Your task to perform on an android device: Search for razer blade on newegg, select the first entry, add it to the cart, then select checkout. Image 0: 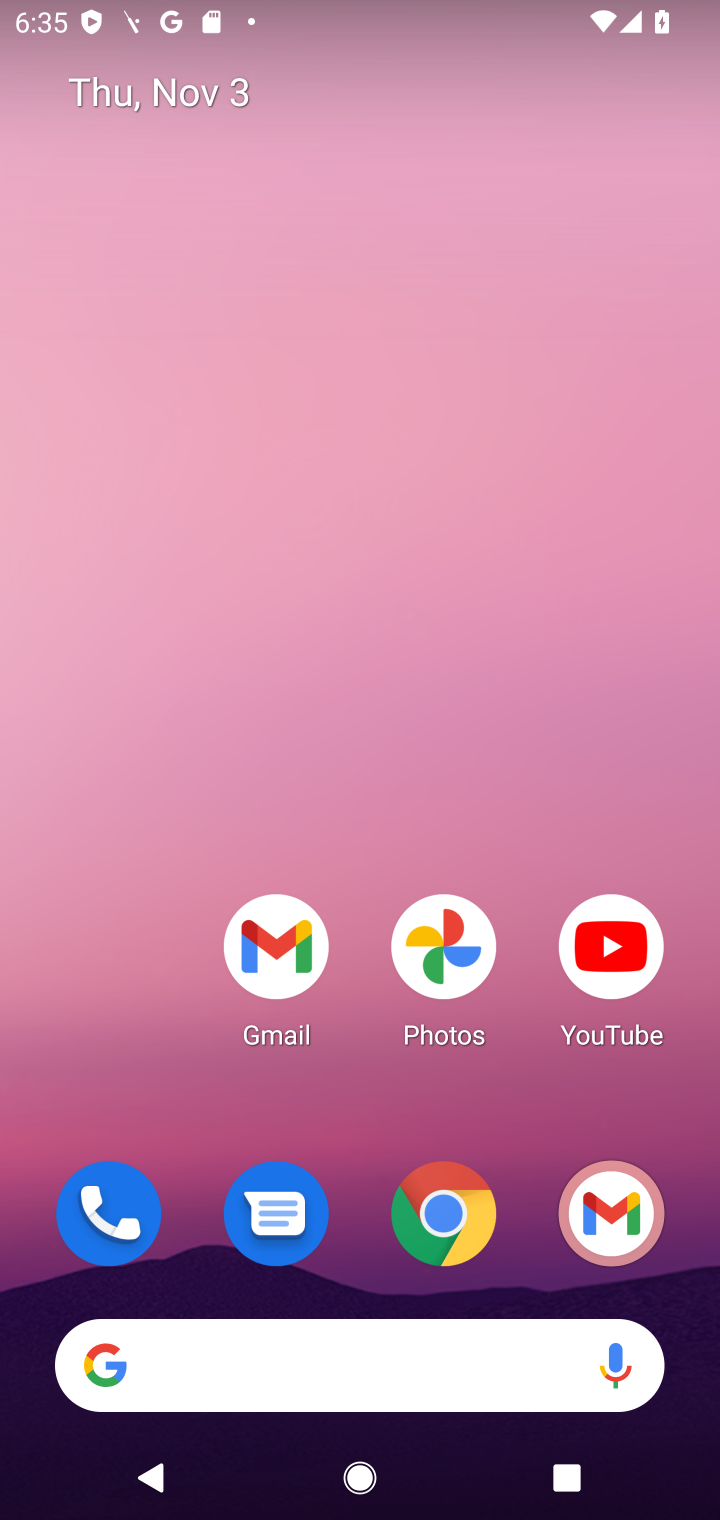
Step 0: click (443, 1220)
Your task to perform on an android device: Search for razer blade on newegg, select the first entry, add it to the cart, then select checkout. Image 1: 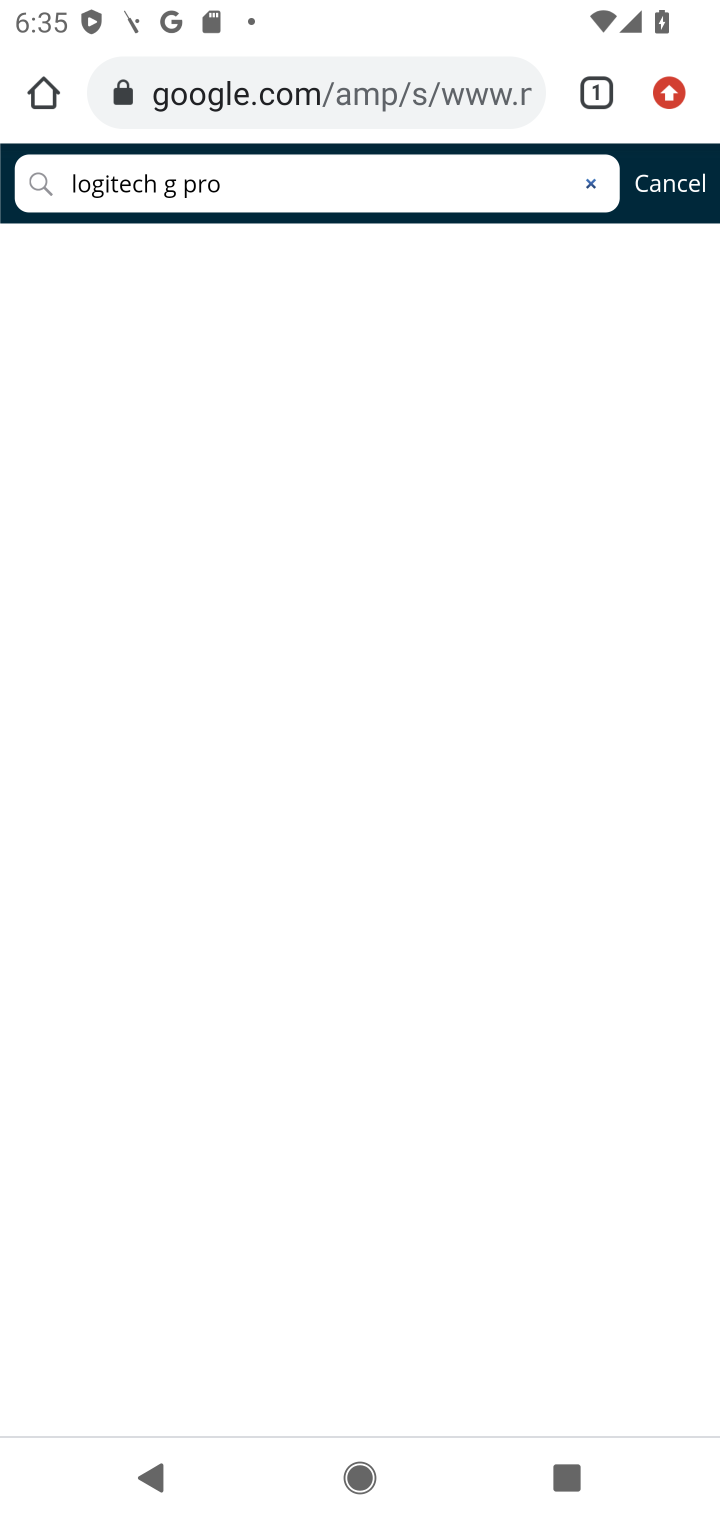
Step 1: click (292, 105)
Your task to perform on an android device: Search for razer blade on newegg, select the first entry, add it to the cart, then select checkout. Image 2: 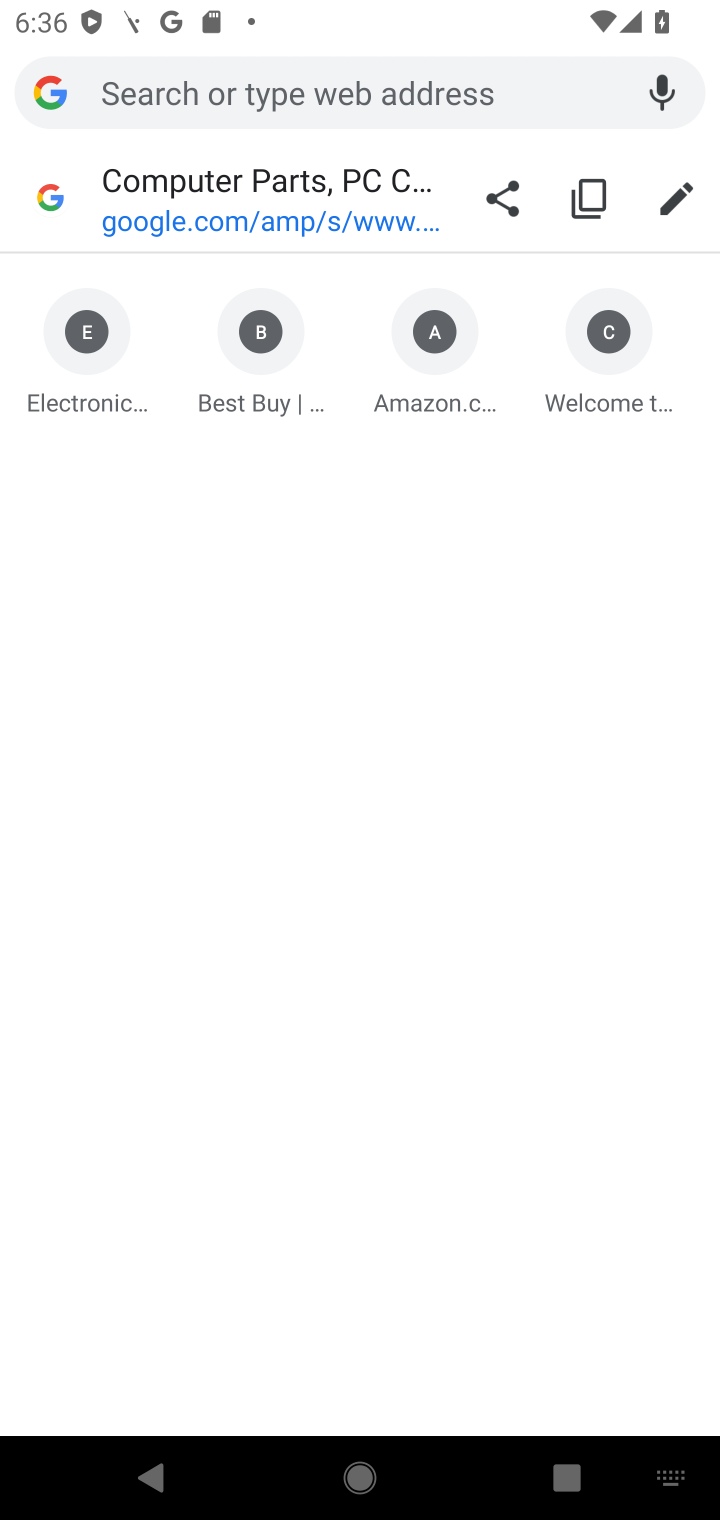
Step 2: type "newegg.com"
Your task to perform on an android device: Search for razer blade on newegg, select the first entry, add it to the cart, then select checkout. Image 3: 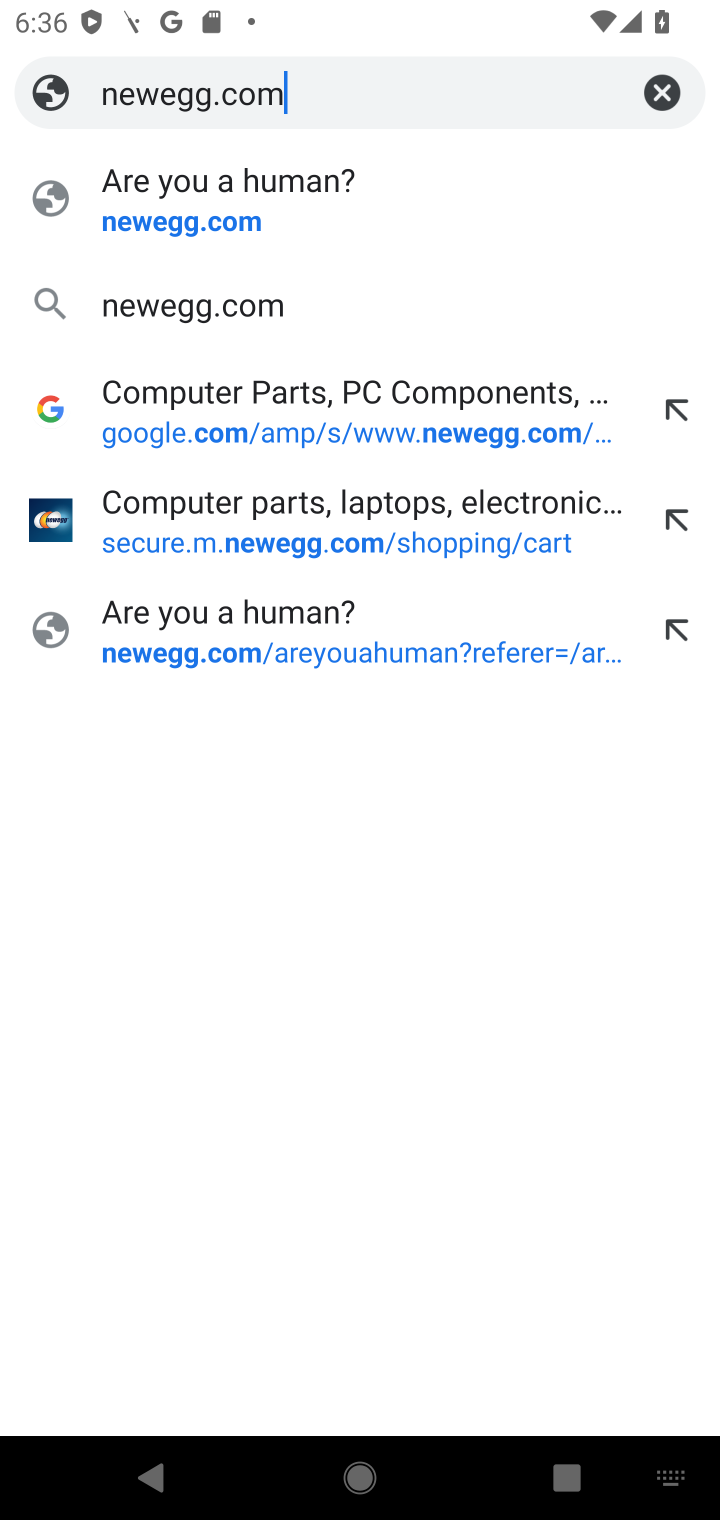
Step 3: click (183, 313)
Your task to perform on an android device: Search for razer blade on newegg, select the first entry, add it to the cart, then select checkout. Image 4: 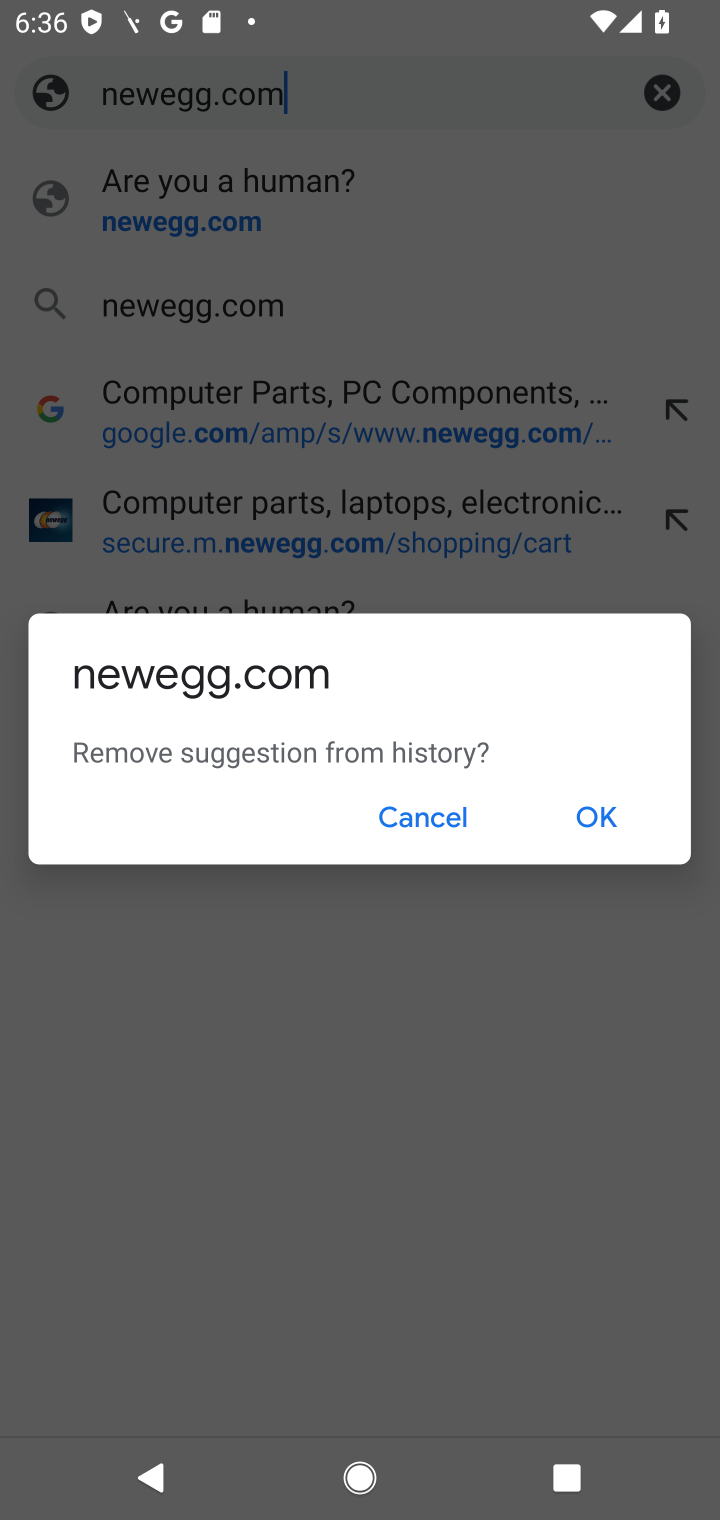
Step 4: click (402, 823)
Your task to perform on an android device: Search for razer blade on newegg, select the first entry, add it to the cart, then select checkout. Image 5: 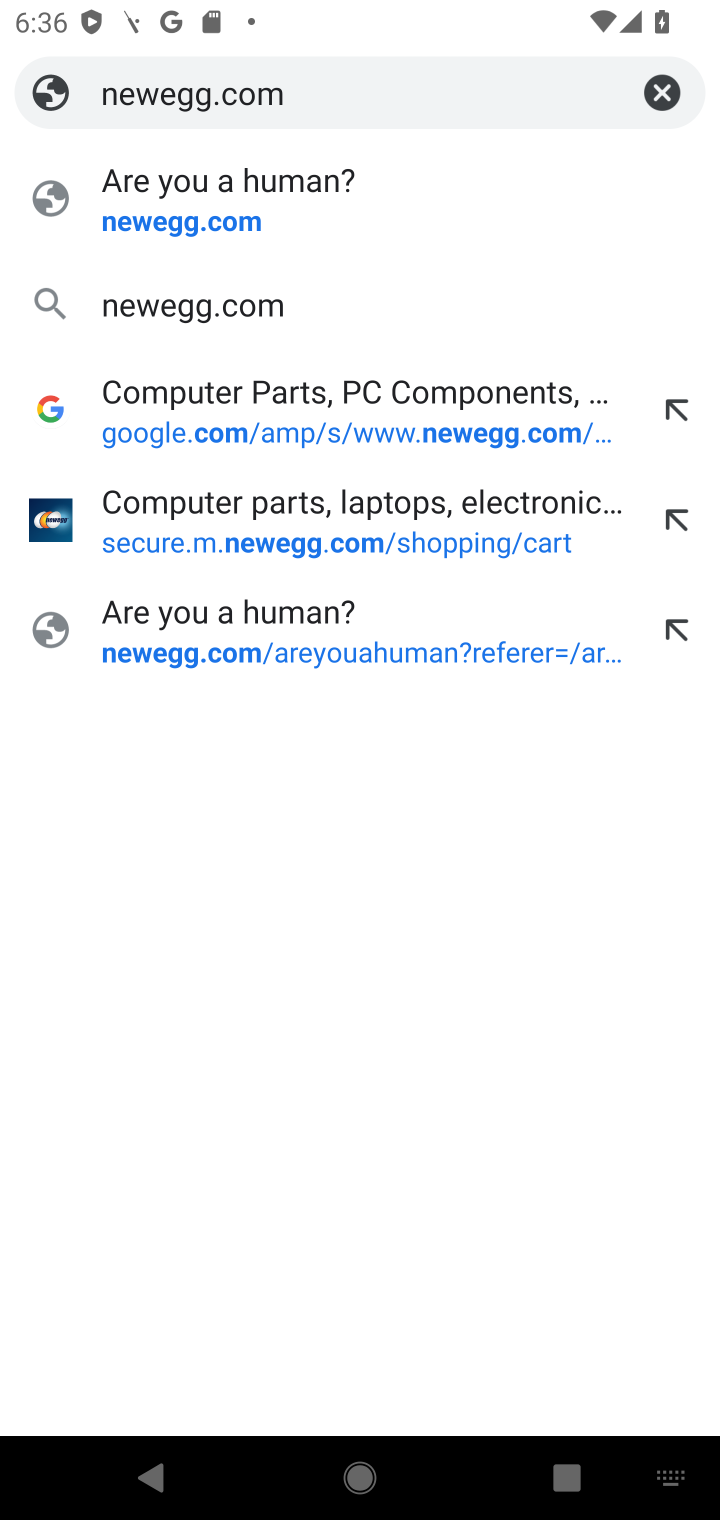
Step 5: click (164, 314)
Your task to perform on an android device: Search for razer blade on newegg, select the first entry, add it to the cart, then select checkout. Image 6: 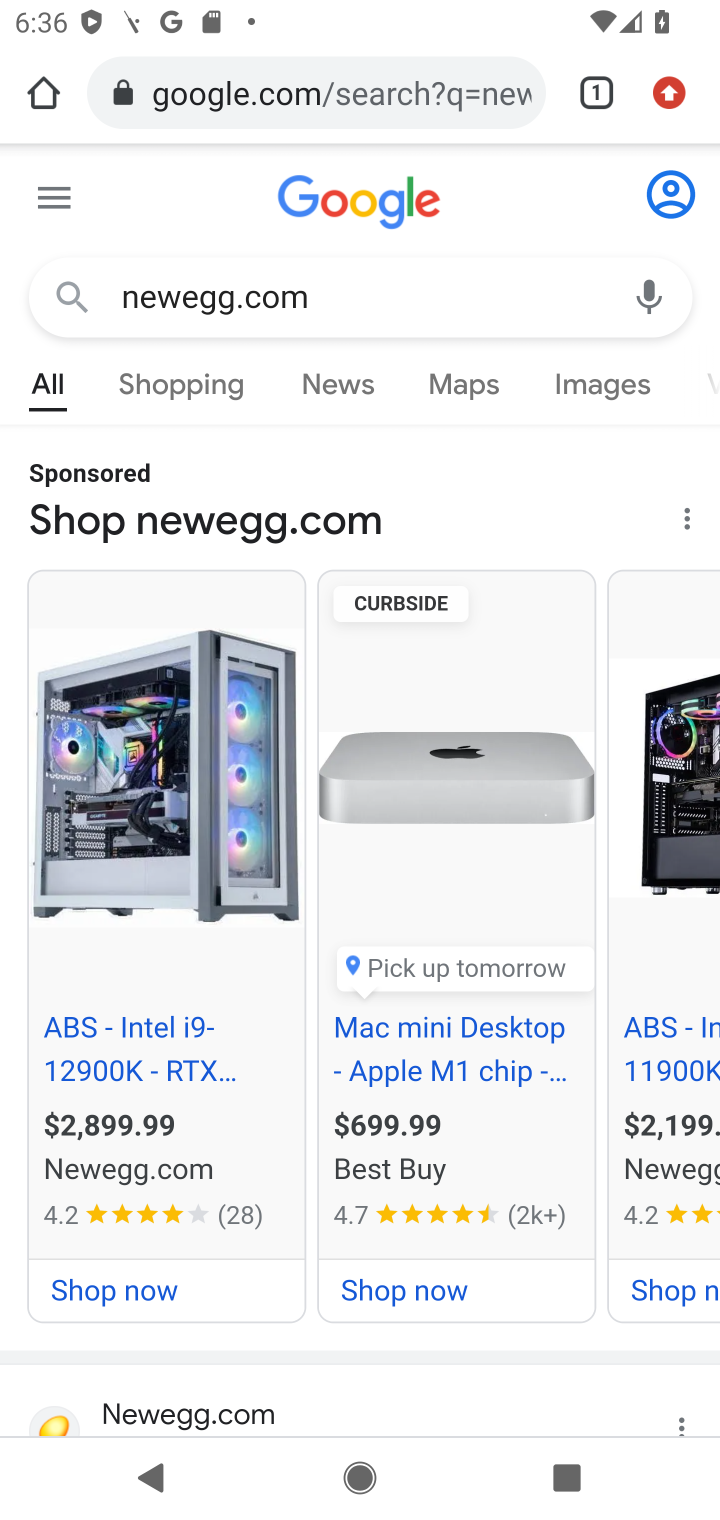
Step 6: drag from (286, 1016) to (374, 406)
Your task to perform on an android device: Search for razer blade on newegg, select the first entry, add it to the cart, then select checkout. Image 7: 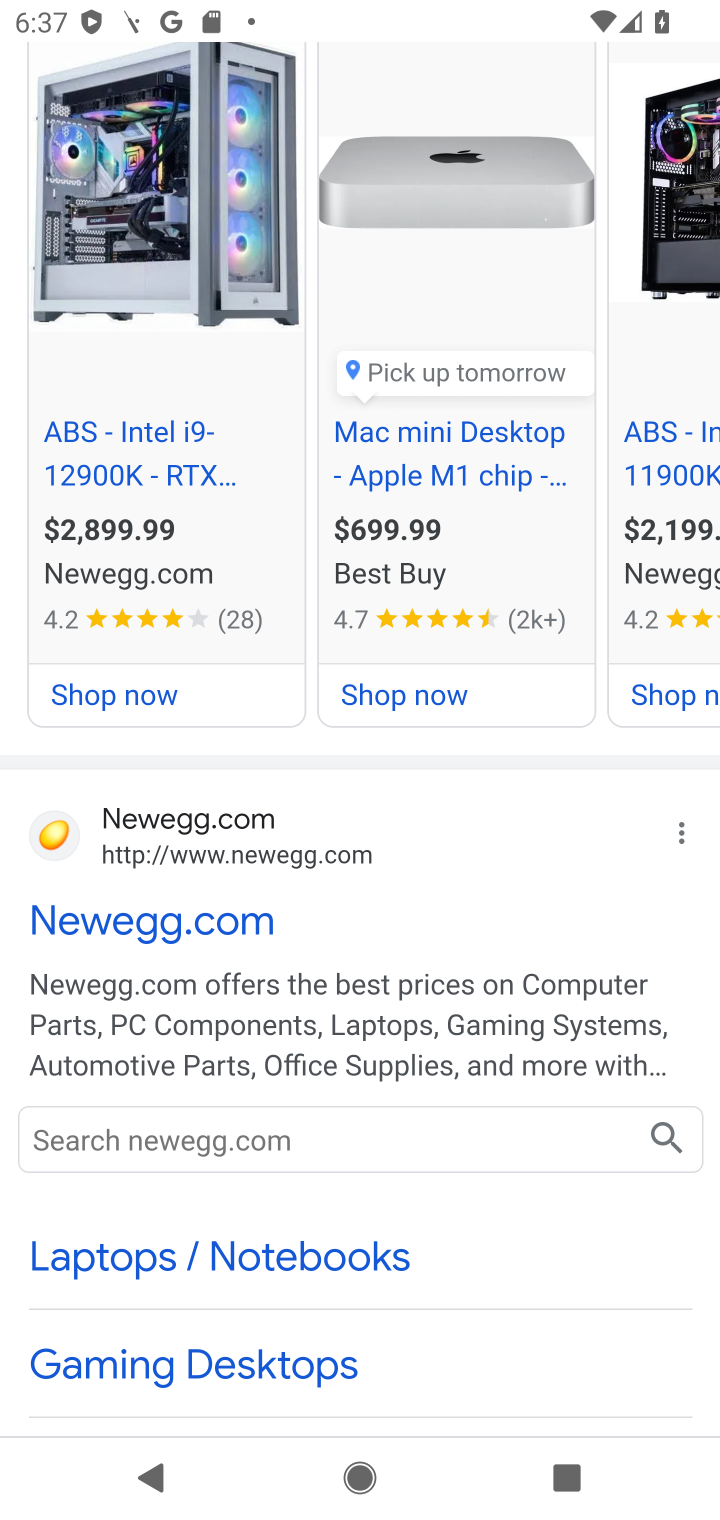
Step 7: click (84, 937)
Your task to perform on an android device: Search for razer blade on newegg, select the first entry, add it to the cart, then select checkout. Image 8: 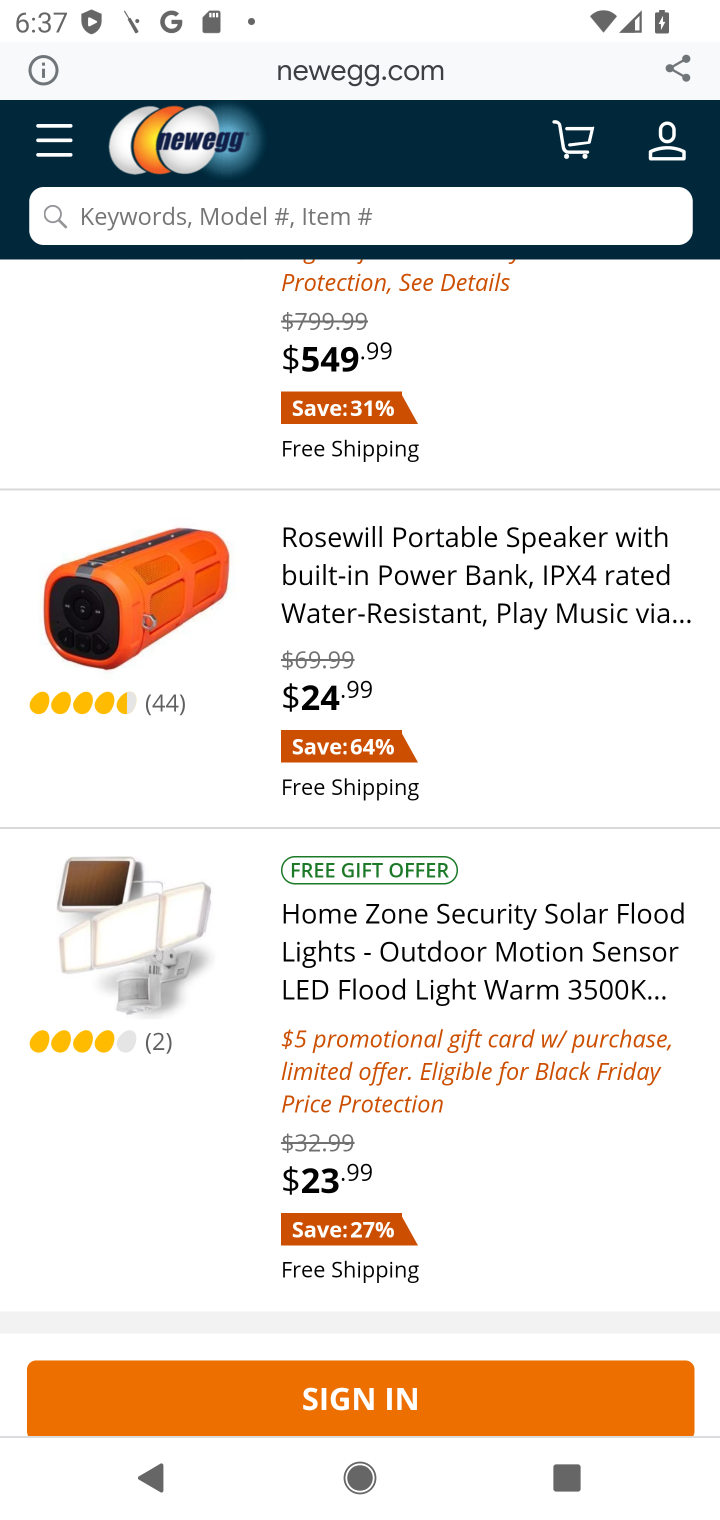
Step 8: drag from (143, 490) to (232, 1056)
Your task to perform on an android device: Search for razer blade on newegg, select the first entry, add it to the cart, then select checkout. Image 9: 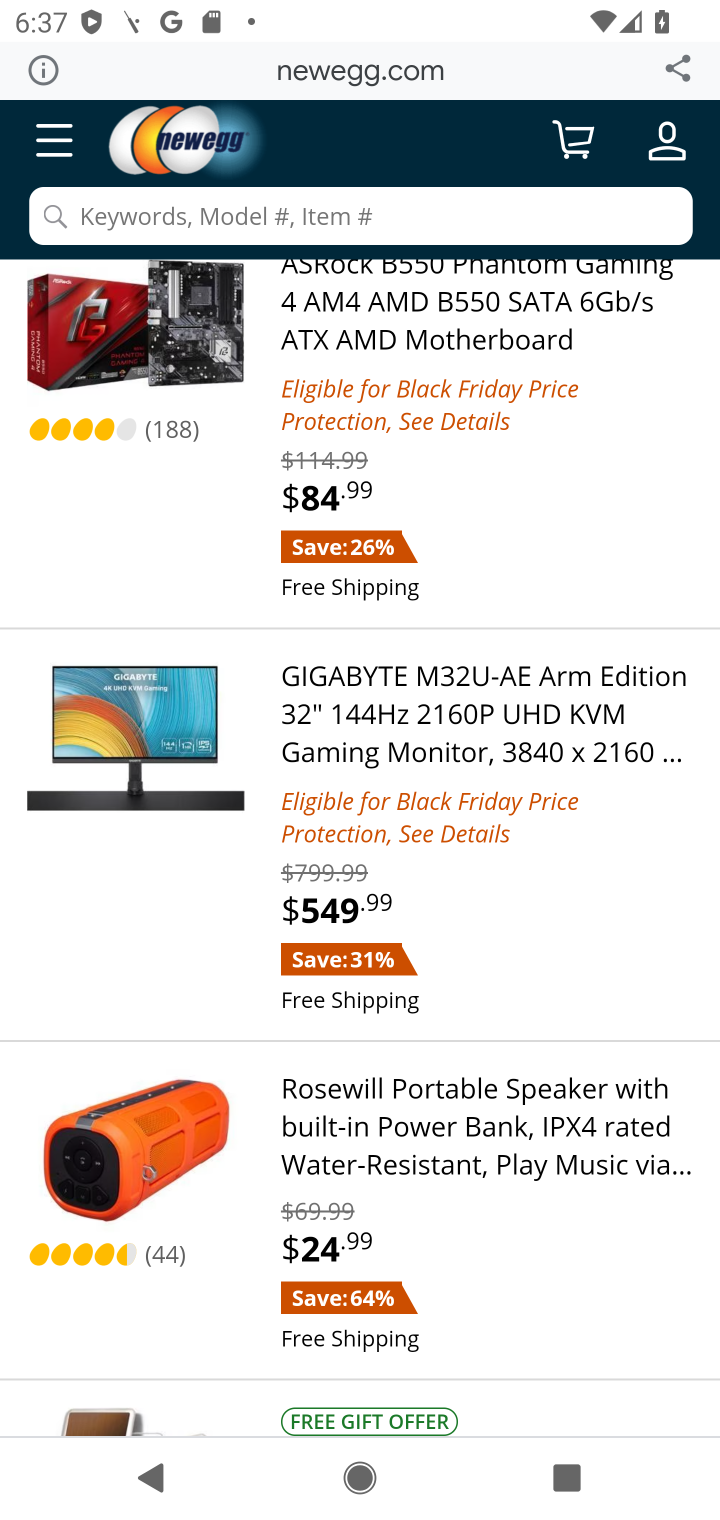
Step 9: drag from (261, 484) to (249, 1074)
Your task to perform on an android device: Search for razer blade on newegg, select the first entry, add it to the cart, then select checkout. Image 10: 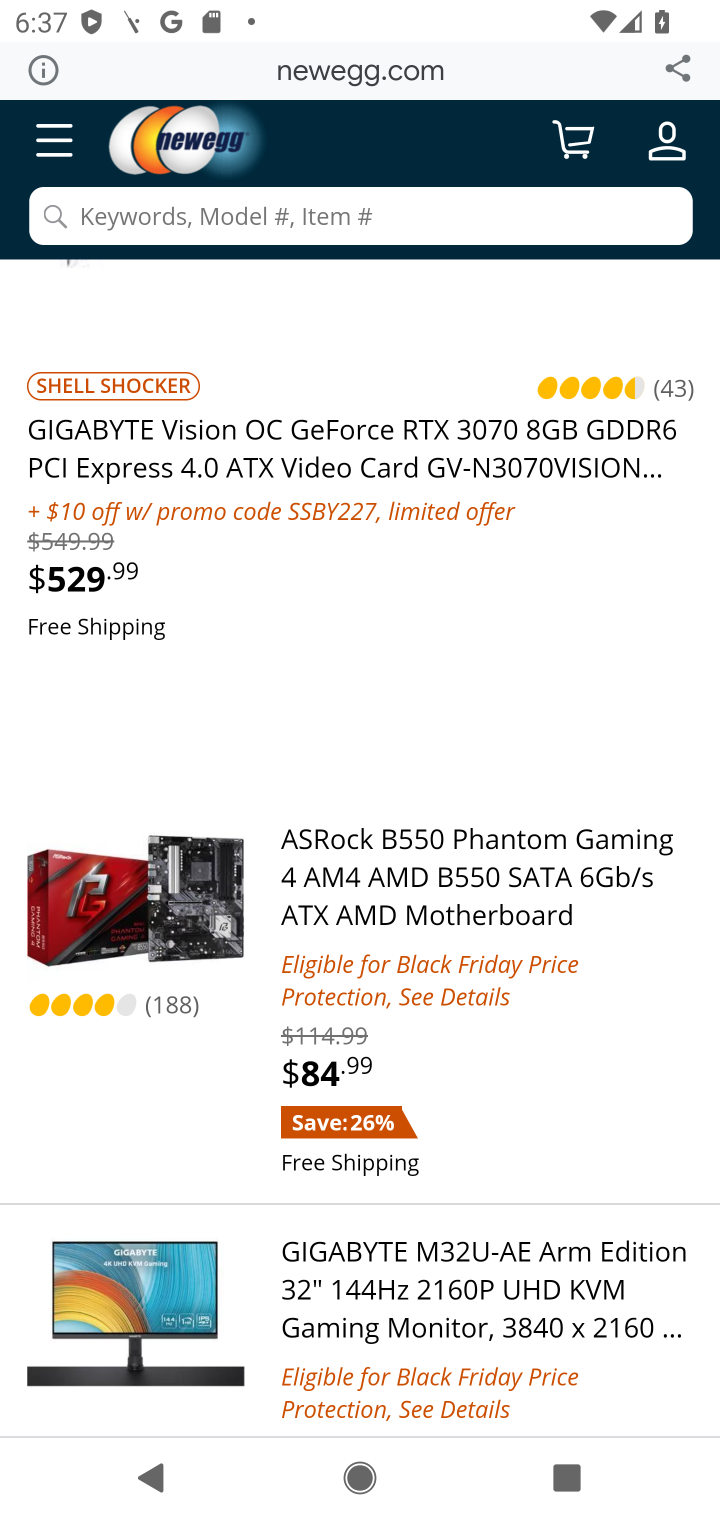
Step 10: drag from (244, 597) to (278, 1174)
Your task to perform on an android device: Search for razer blade on newegg, select the first entry, add it to the cart, then select checkout. Image 11: 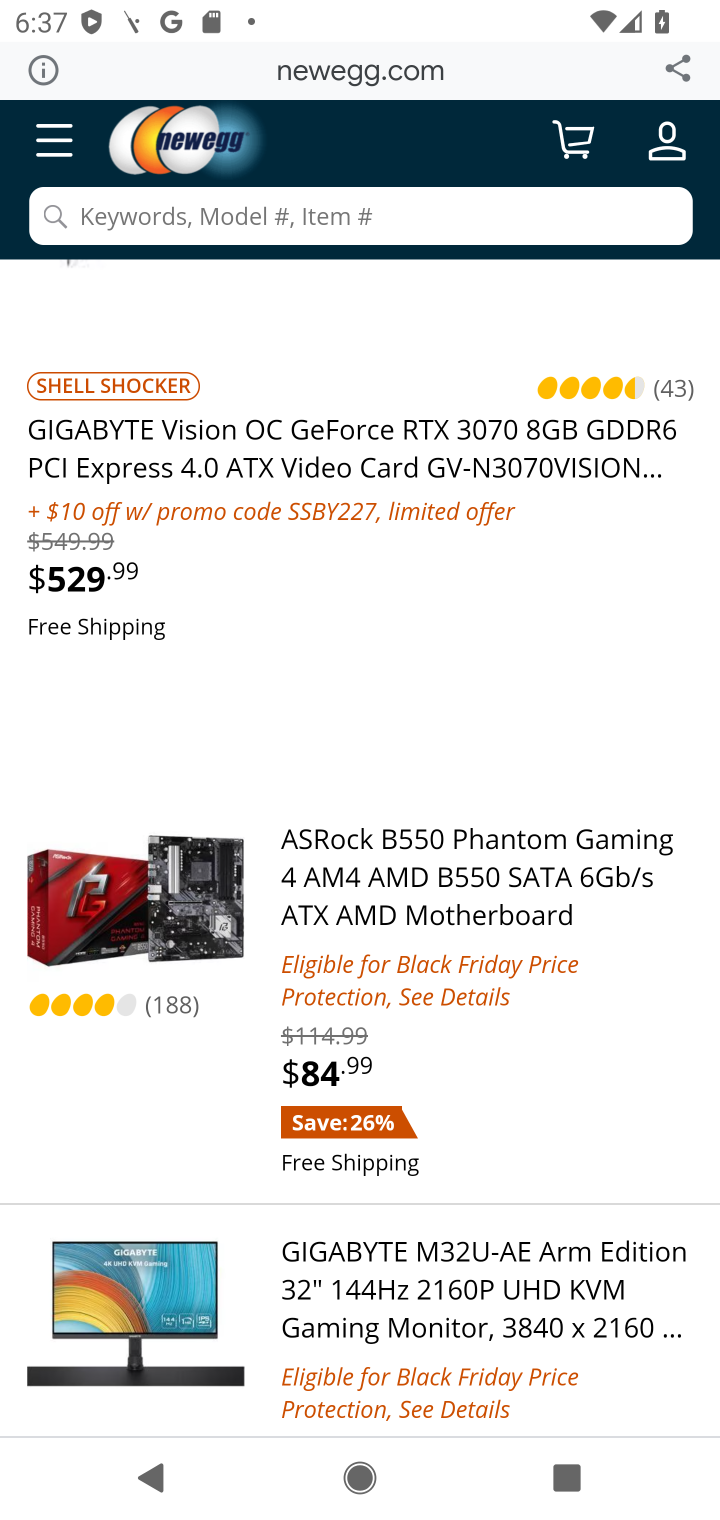
Step 11: drag from (313, 472) to (311, 1036)
Your task to perform on an android device: Search for razer blade on newegg, select the first entry, add it to the cart, then select checkout. Image 12: 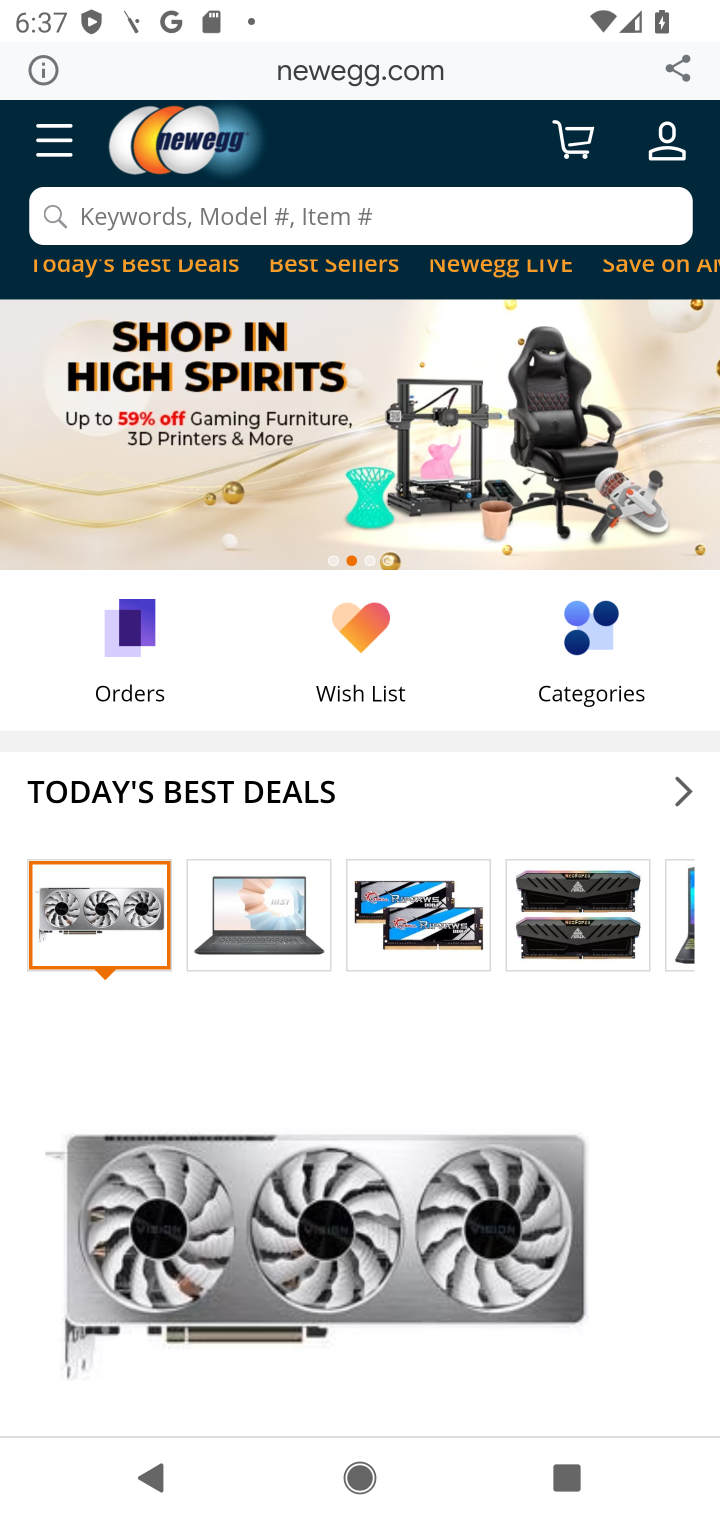
Step 12: click (307, 217)
Your task to perform on an android device: Search for razer blade on newegg, select the first entry, add it to the cart, then select checkout. Image 13: 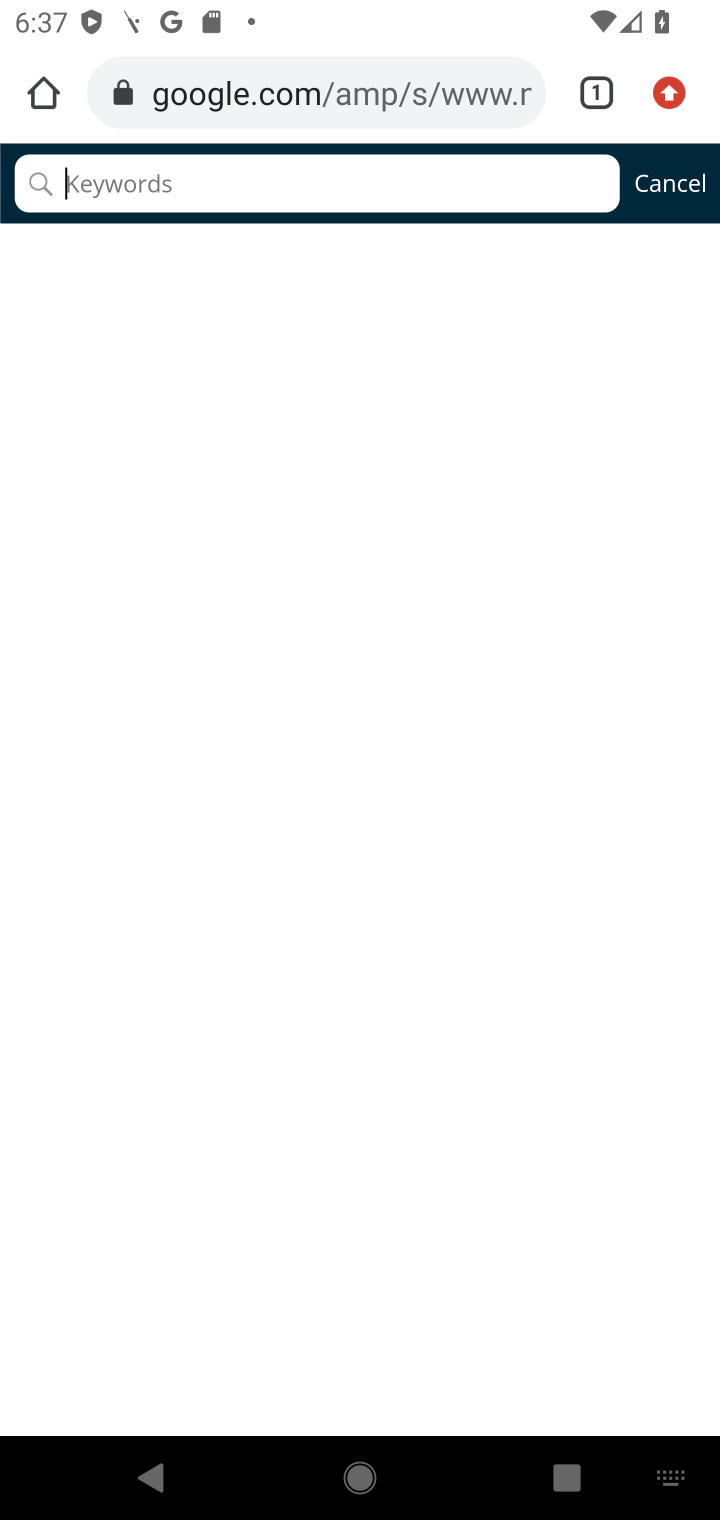
Step 13: type "razer blade "
Your task to perform on an android device: Search for razer blade on newegg, select the first entry, add it to the cart, then select checkout. Image 14: 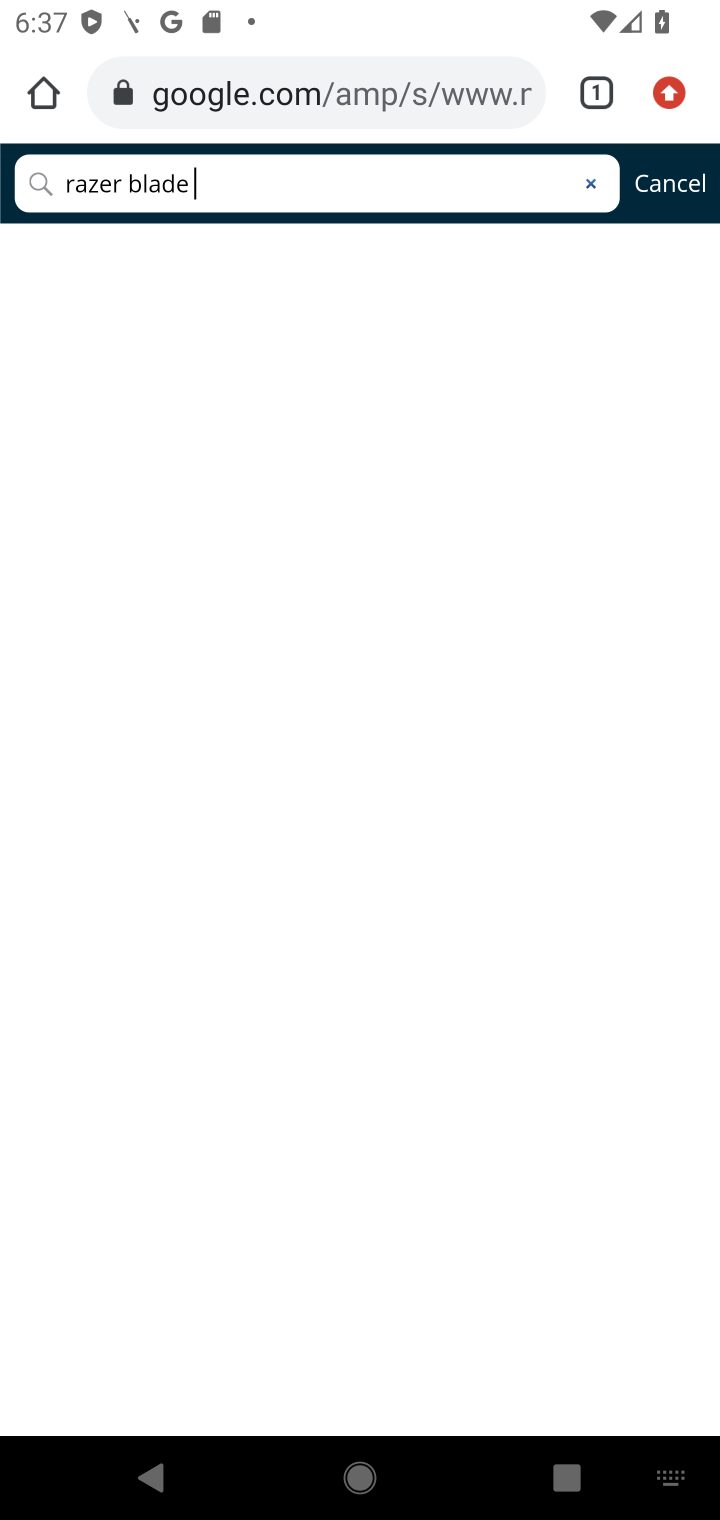
Step 14: click (45, 187)
Your task to perform on an android device: Search for razer blade on newegg, select the first entry, add it to the cart, then select checkout. Image 15: 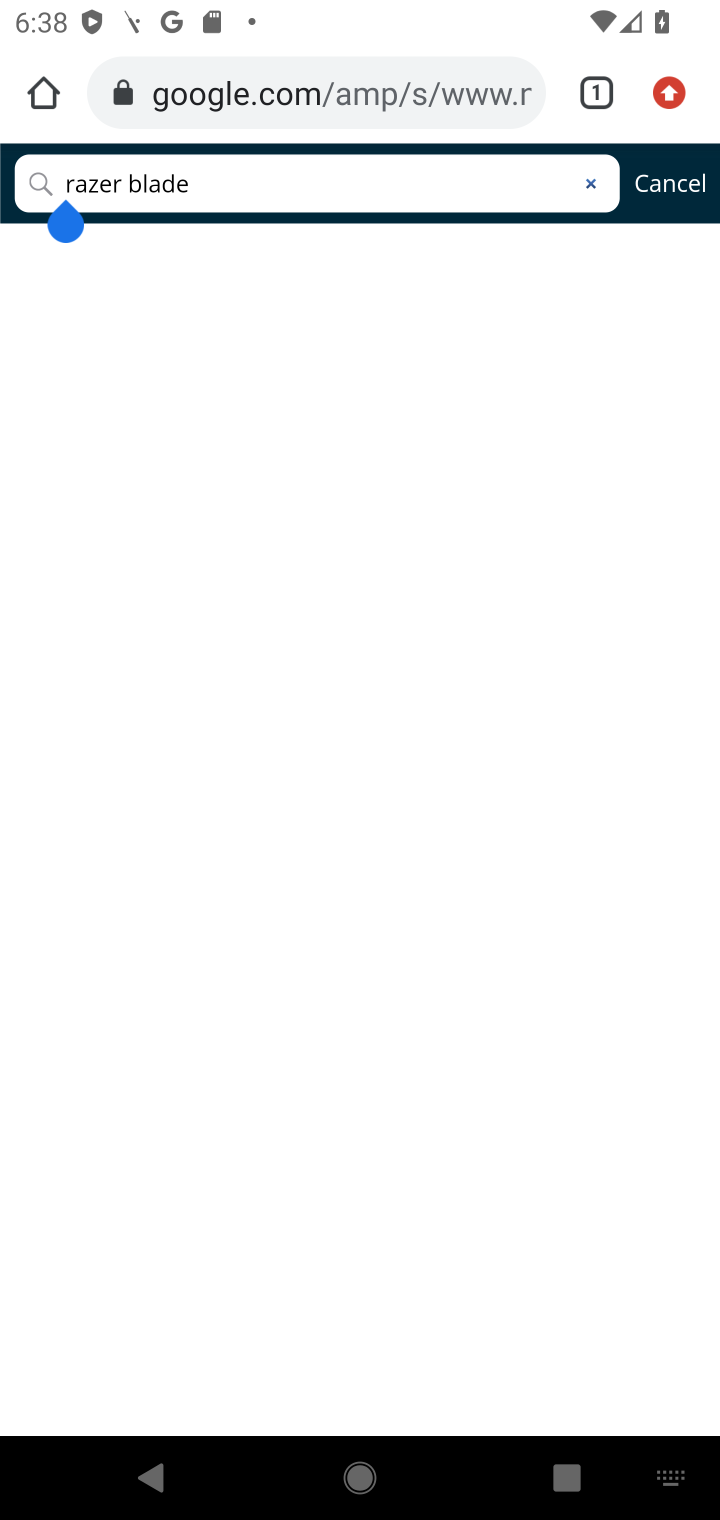
Step 15: task complete